Your task to perform on an android device: Open Wikipedia Image 0: 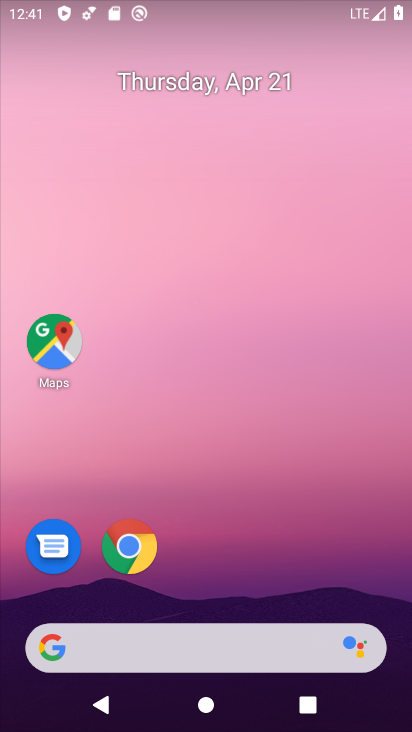
Step 0: click (147, 552)
Your task to perform on an android device: Open Wikipedia Image 1: 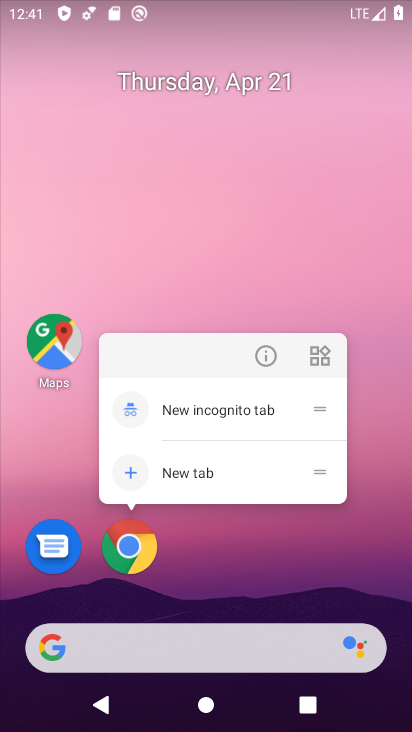
Step 1: click (136, 553)
Your task to perform on an android device: Open Wikipedia Image 2: 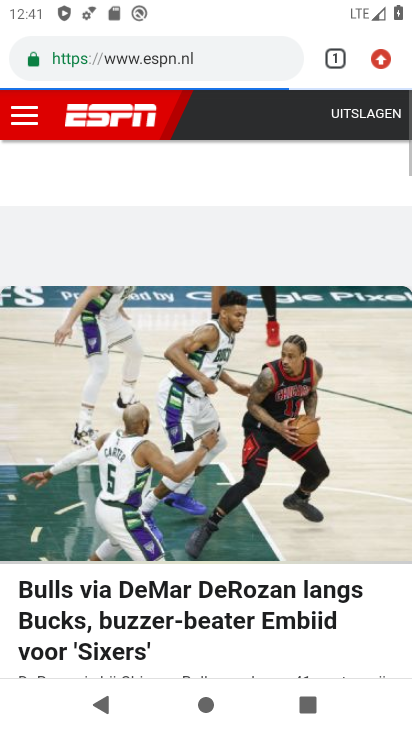
Step 2: click (177, 63)
Your task to perform on an android device: Open Wikipedia Image 3: 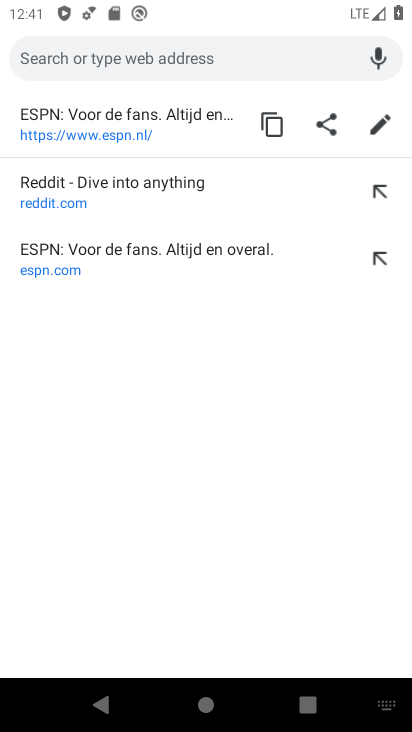
Step 3: type "wikipedia"
Your task to perform on an android device: Open Wikipedia Image 4: 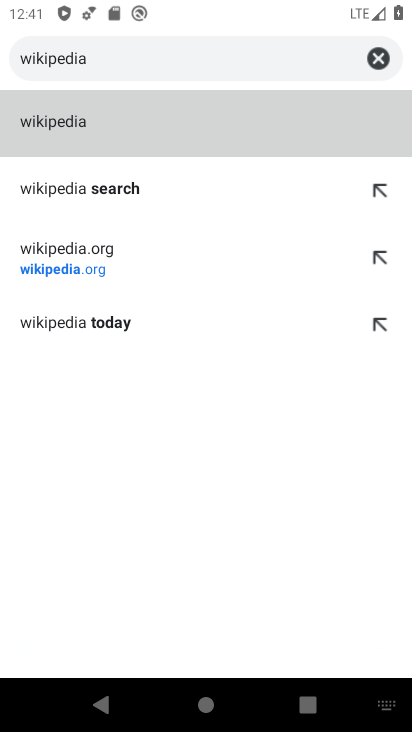
Step 4: click (82, 129)
Your task to perform on an android device: Open Wikipedia Image 5: 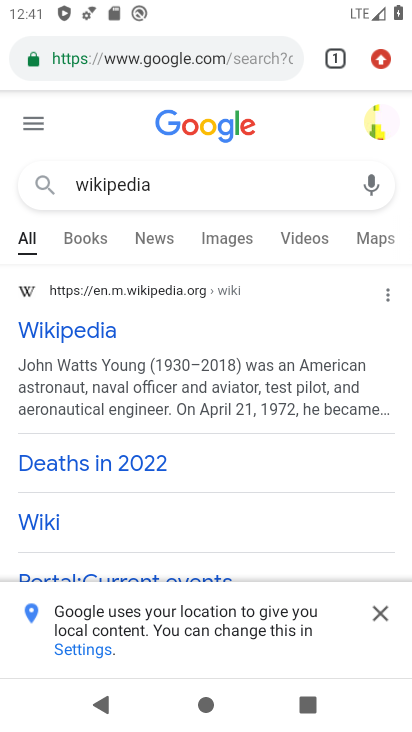
Step 5: click (82, 326)
Your task to perform on an android device: Open Wikipedia Image 6: 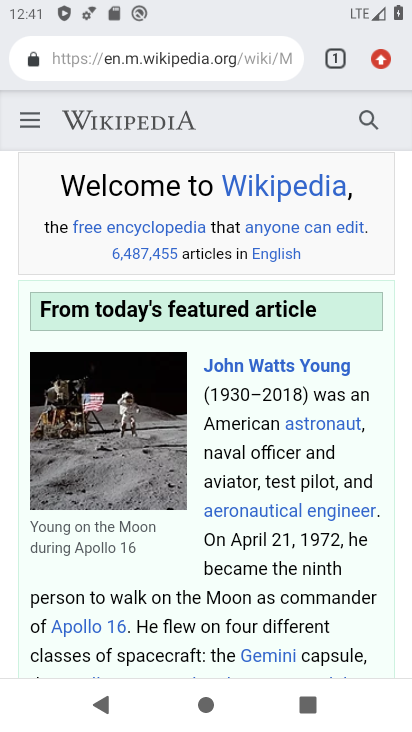
Step 6: task complete